Your task to perform on an android device: Do I have any events tomorrow? Image 0: 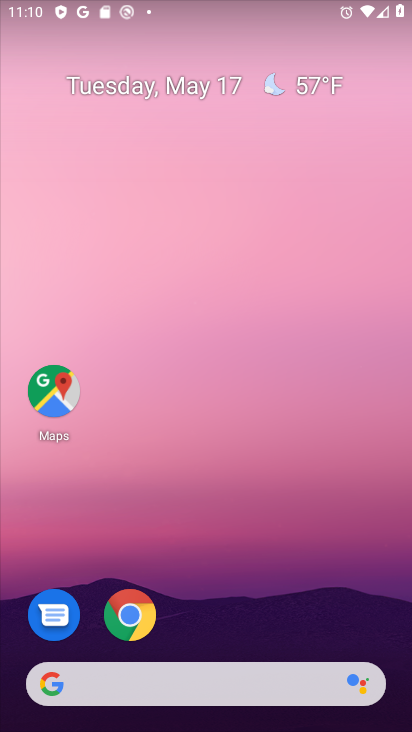
Step 0: drag from (313, 578) to (278, 154)
Your task to perform on an android device: Do I have any events tomorrow? Image 1: 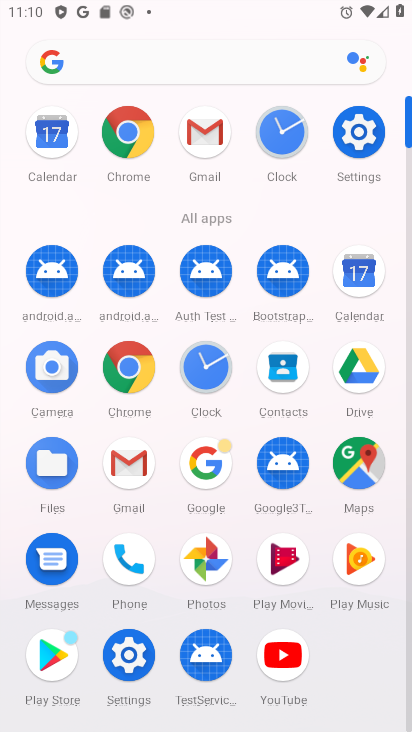
Step 1: click (366, 268)
Your task to perform on an android device: Do I have any events tomorrow? Image 2: 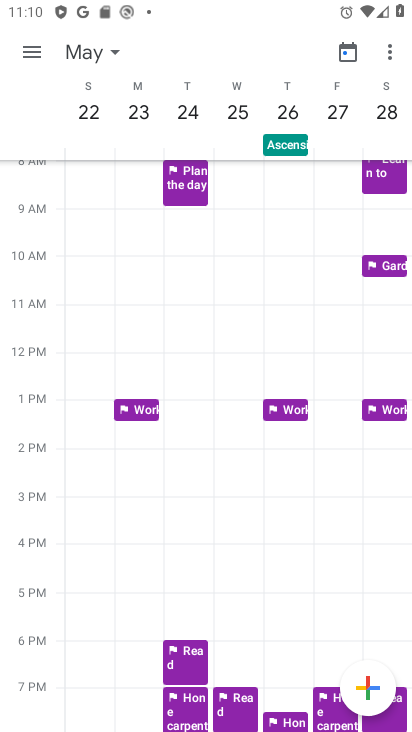
Step 2: click (82, 56)
Your task to perform on an android device: Do I have any events tomorrow? Image 3: 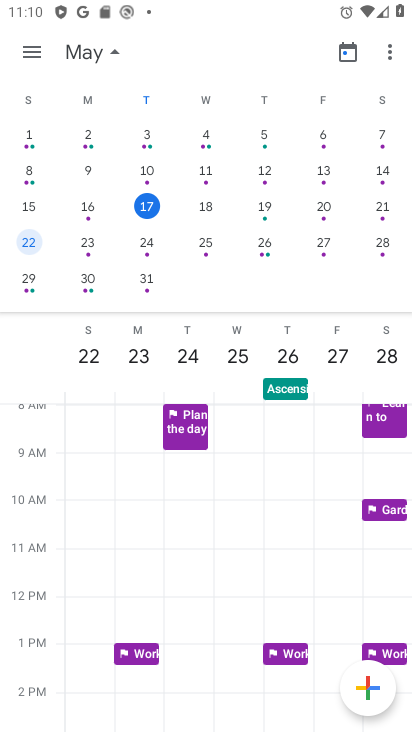
Step 3: click (202, 202)
Your task to perform on an android device: Do I have any events tomorrow? Image 4: 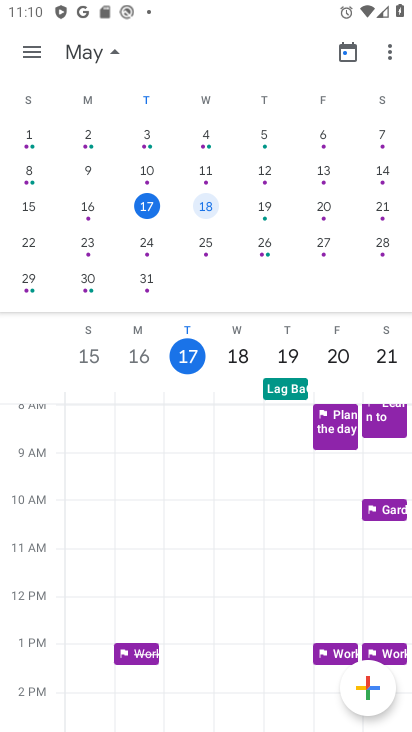
Step 4: click (203, 201)
Your task to perform on an android device: Do I have any events tomorrow? Image 5: 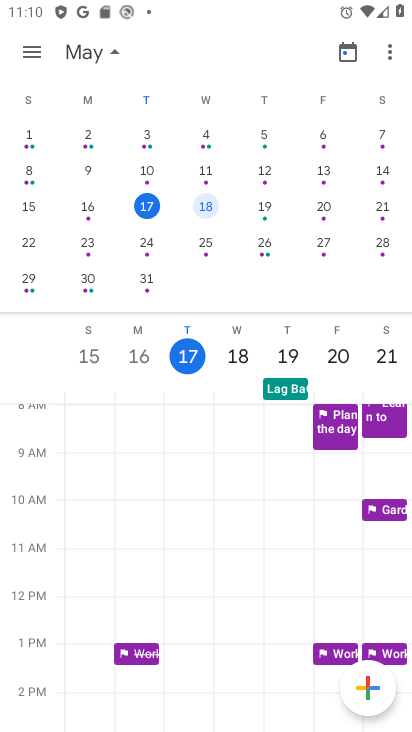
Step 5: click (235, 357)
Your task to perform on an android device: Do I have any events tomorrow? Image 6: 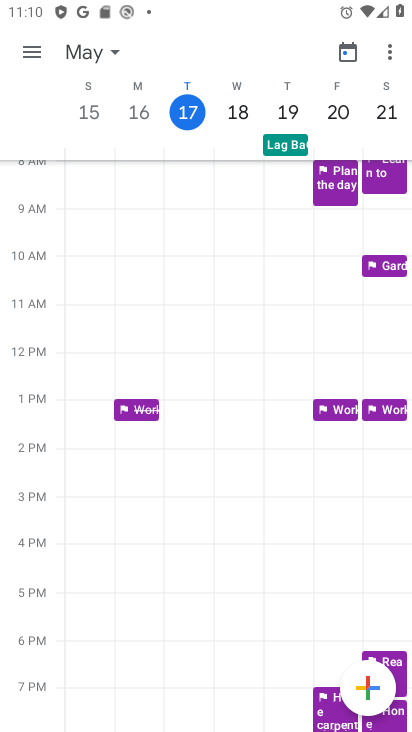
Step 6: click (39, 46)
Your task to perform on an android device: Do I have any events tomorrow? Image 7: 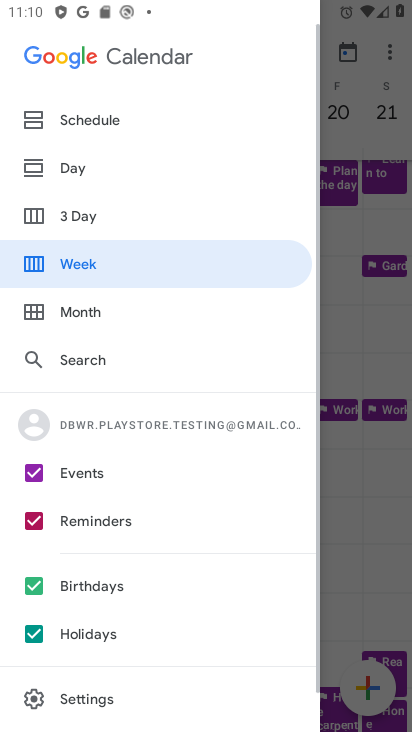
Step 7: click (81, 158)
Your task to perform on an android device: Do I have any events tomorrow? Image 8: 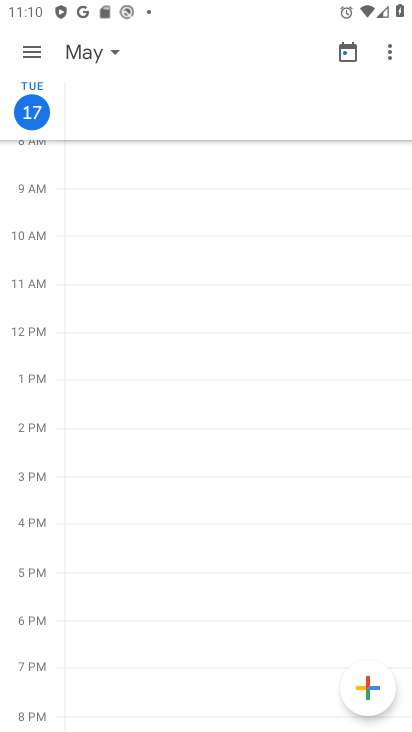
Step 8: click (76, 48)
Your task to perform on an android device: Do I have any events tomorrow? Image 9: 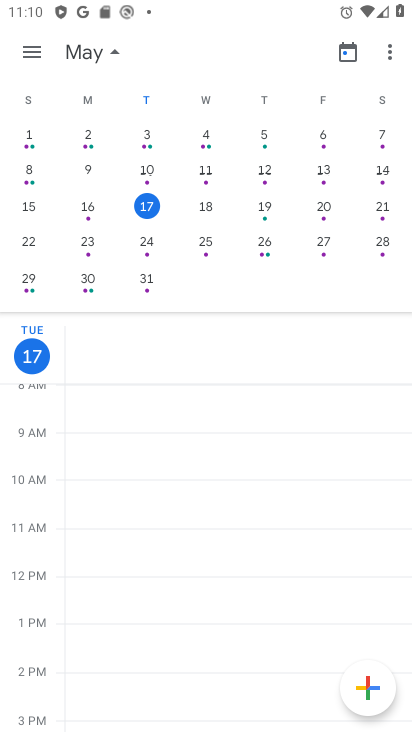
Step 9: click (212, 202)
Your task to perform on an android device: Do I have any events tomorrow? Image 10: 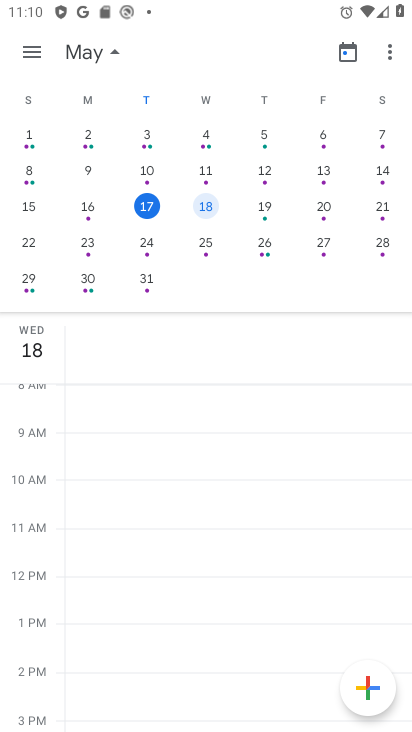
Step 10: click (32, 346)
Your task to perform on an android device: Do I have any events tomorrow? Image 11: 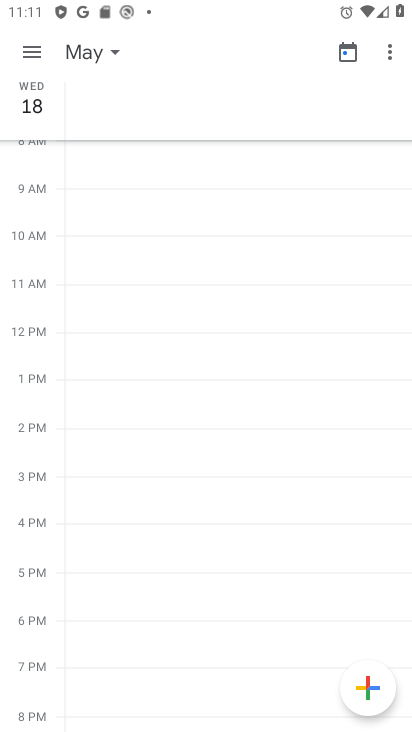
Step 11: task complete